Your task to perform on an android device: Clear the shopping cart on target. Search for lg ultragear on target, select the first entry, add it to the cart, then select checkout. Image 0: 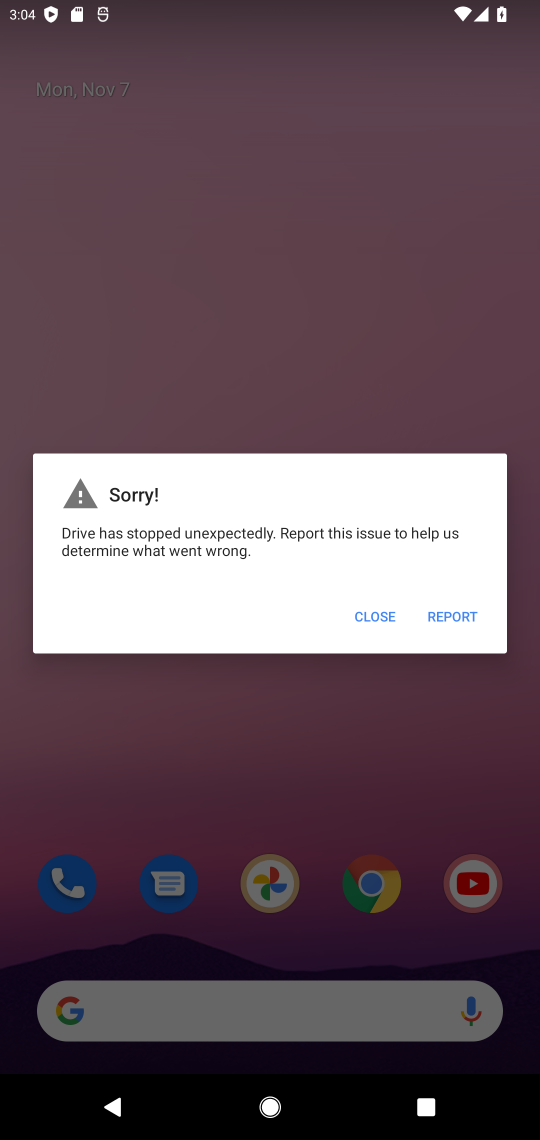
Step 0: press home button
Your task to perform on an android device: Clear the shopping cart on target. Search for lg ultragear on target, select the first entry, add it to the cart, then select checkout. Image 1: 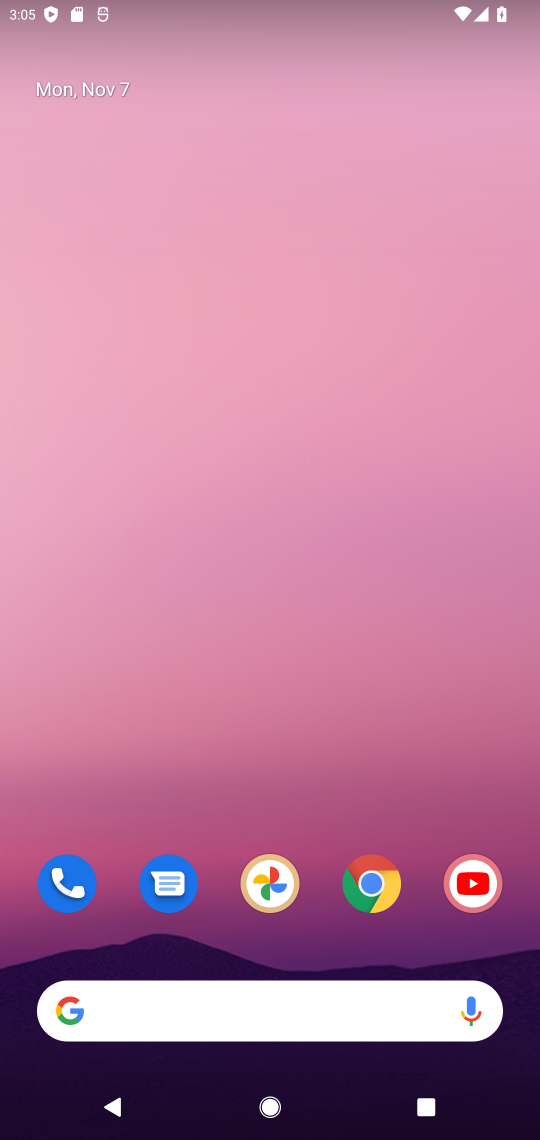
Step 1: click (377, 876)
Your task to perform on an android device: Clear the shopping cart on target. Search for lg ultragear on target, select the first entry, add it to the cart, then select checkout. Image 2: 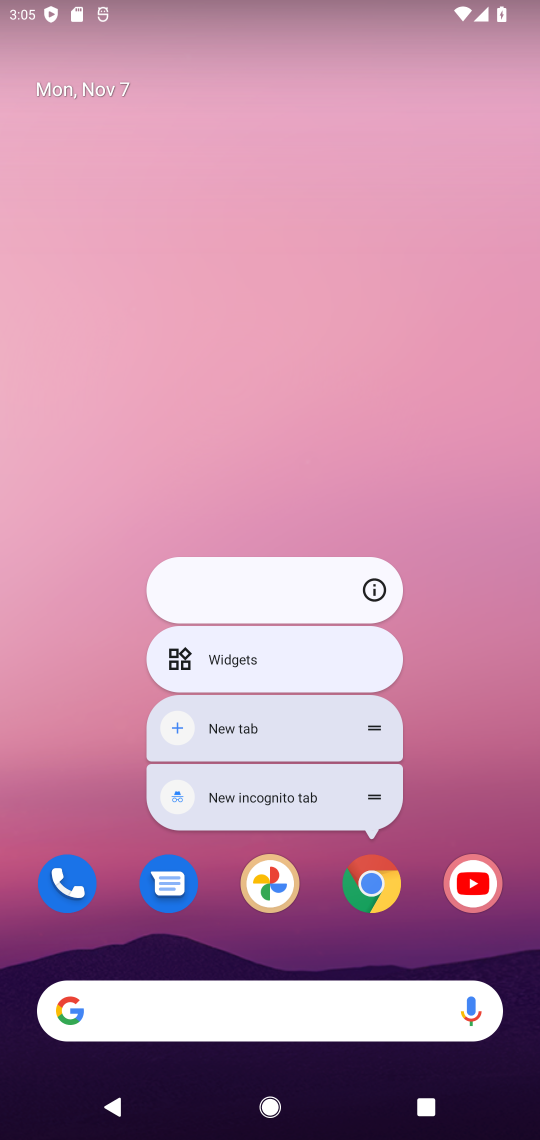
Step 2: click (377, 885)
Your task to perform on an android device: Clear the shopping cart on target. Search for lg ultragear on target, select the first entry, add it to the cart, then select checkout. Image 3: 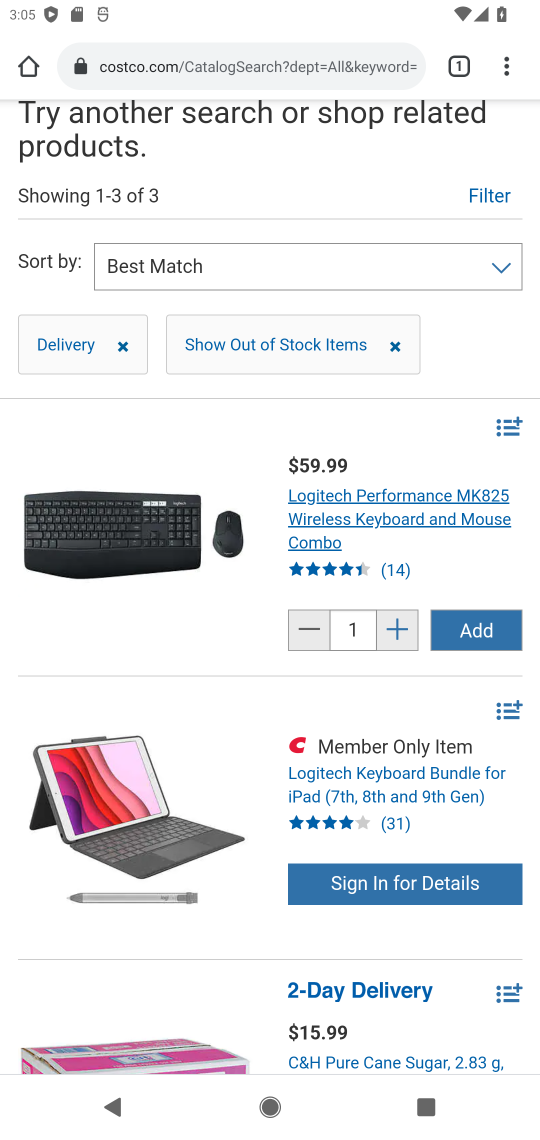
Step 3: click (315, 73)
Your task to perform on an android device: Clear the shopping cart on target. Search for lg ultragear on target, select the first entry, add it to the cart, then select checkout. Image 4: 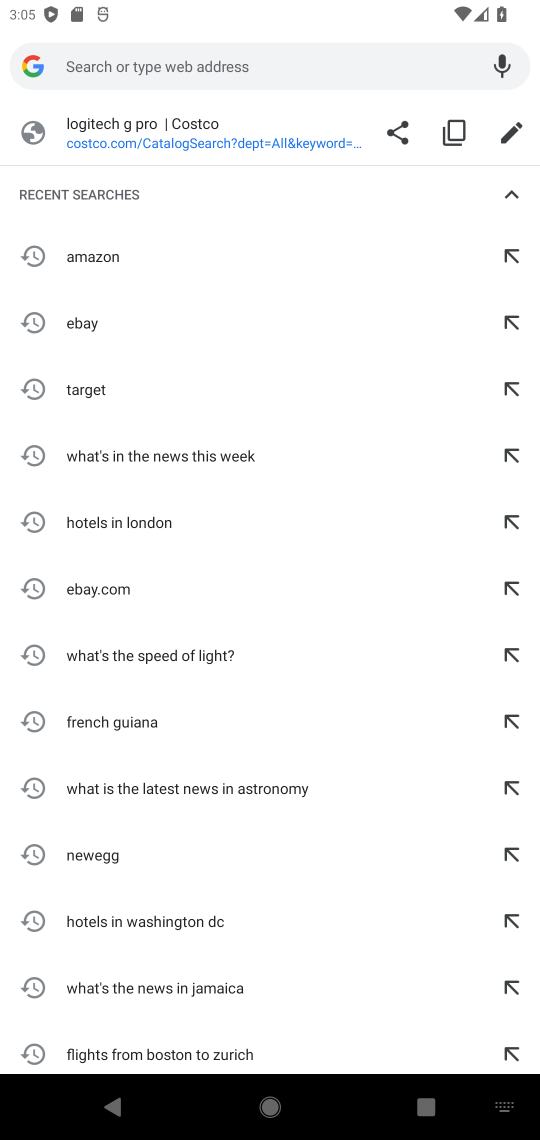
Step 4: type " target"
Your task to perform on an android device: Clear the shopping cart on target. Search for lg ultragear on target, select the first entry, add it to the cart, then select checkout. Image 5: 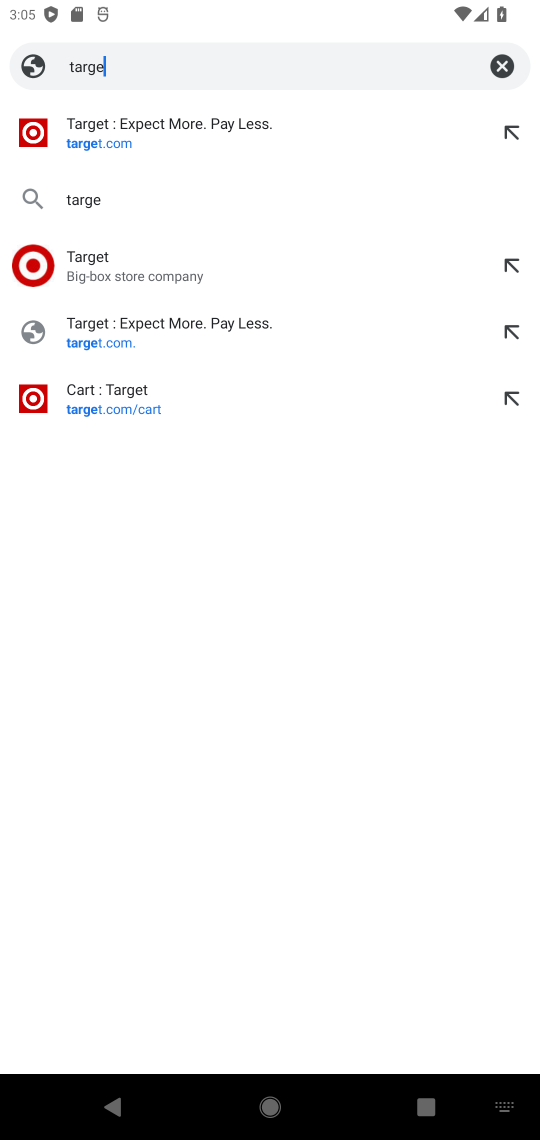
Step 5: press enter
Your task to perform on an android device: Clear the shopping cart on target. Search for lg ultragear on target, select the first entry, add it to the cart, then select checkout. Image 6: 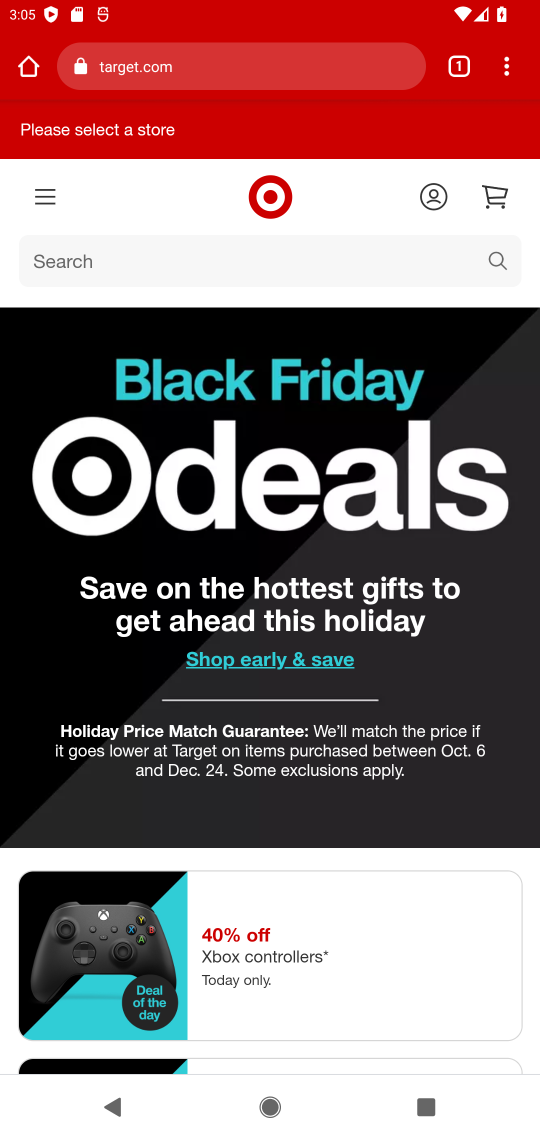
Step 6: drag from (327, 902) to (398, 912)
Your task to perform on an android device: Clear the shopping cart on target. Search for lg ultragear on target, select the first entry, add it to the cart, then select checkout. Image 7: 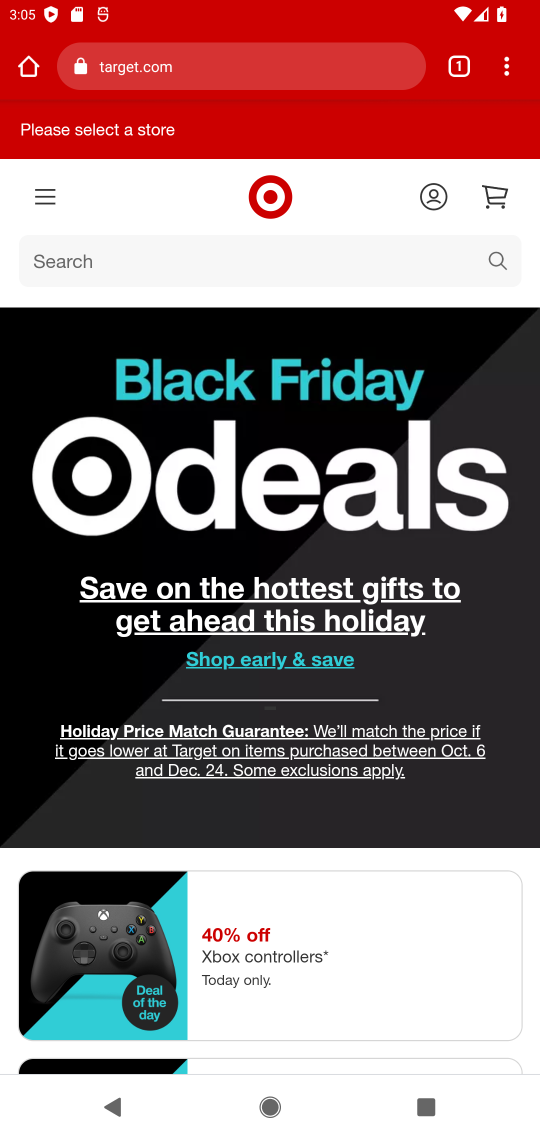
Step 7: click (183, 258)
Your task to perform on an android device: Clear the shopping cart on target. Search for lg ultragear on target, select the first entry, add it to the cart, then select checkout. Image 8: 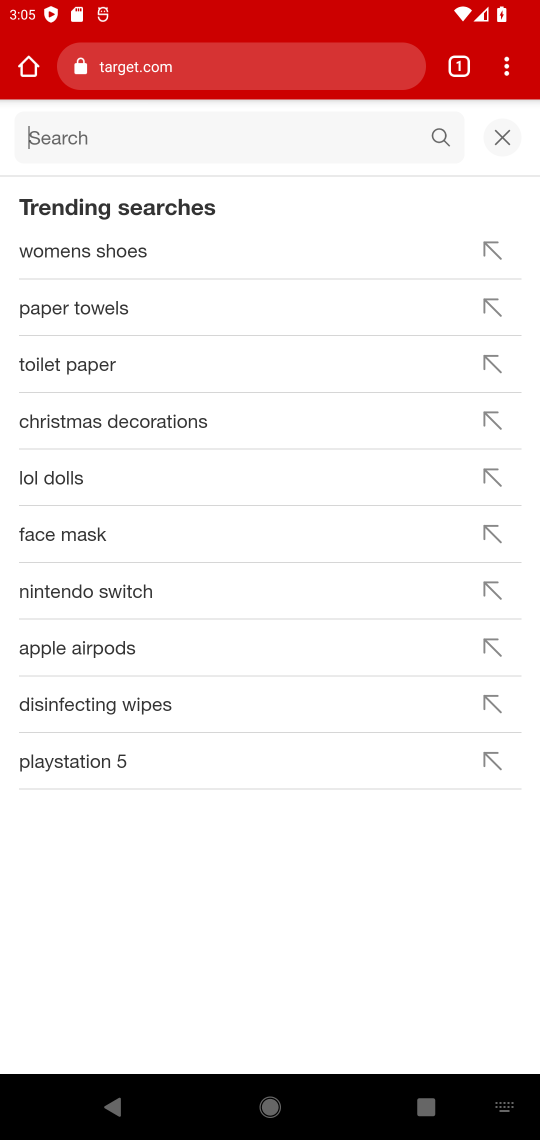
Step 8: type "lg ultragear"
Your task to perform on an android device: Clear the shopping cart on target. Search for lg ultragear on target, select the first entry, add it to the cart, then select checkout. Image 9: 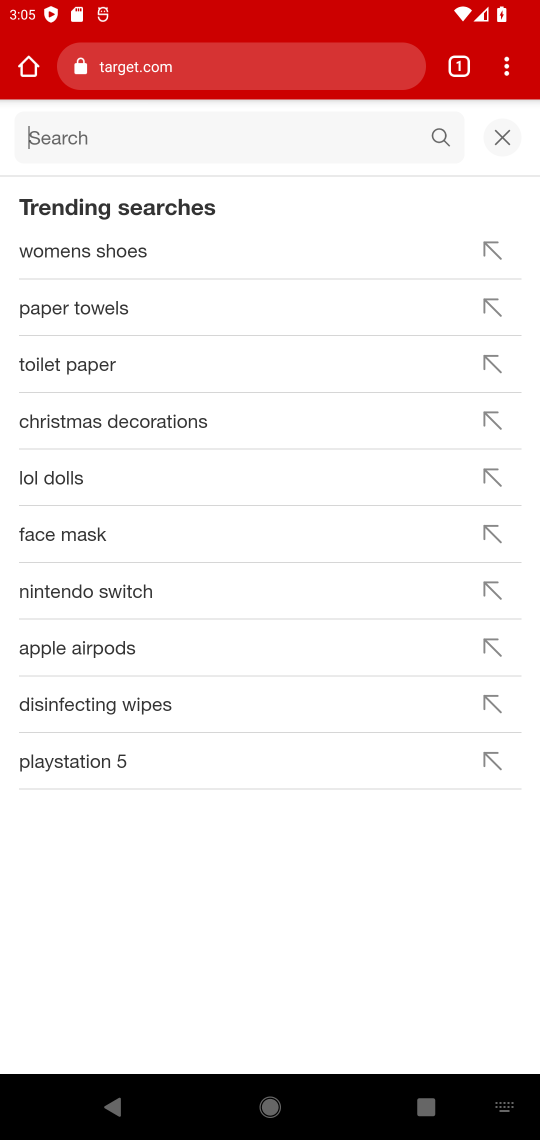
Step 9: press enter
Your task to perform on an android device: Clear the shopping cart on target. Search for lg ultragear on target, select the first entry, add it to the cart, then select checkout. Image 10: 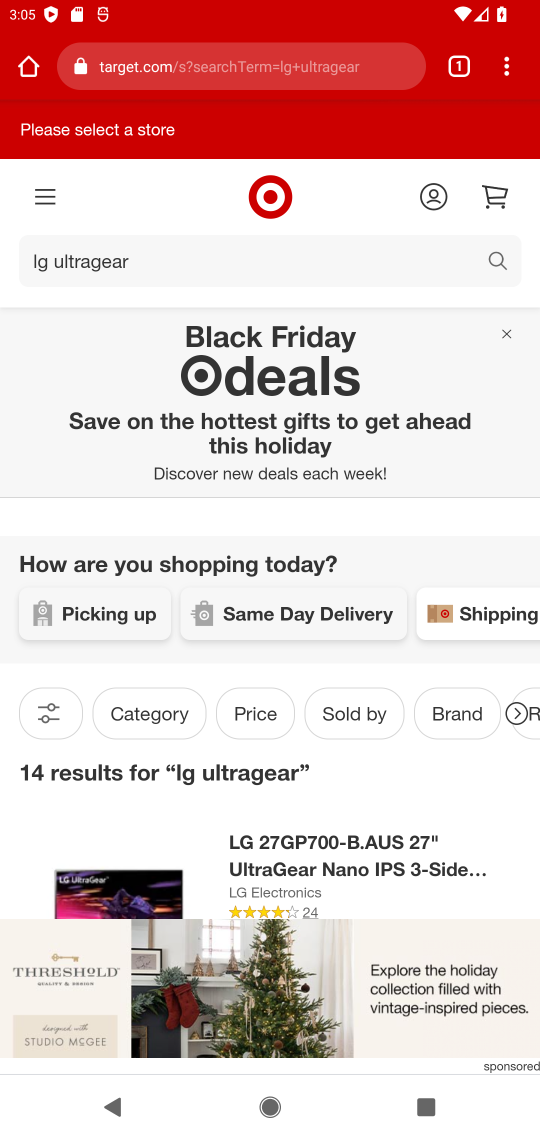
Step 10: drag from (258, 868) to (277, 689)
Your task to perform on an android device: Clear the shopping cart on target. Search for lg ultragear on target, select the first entry, add it to the cart, then select checkout. Image 11: 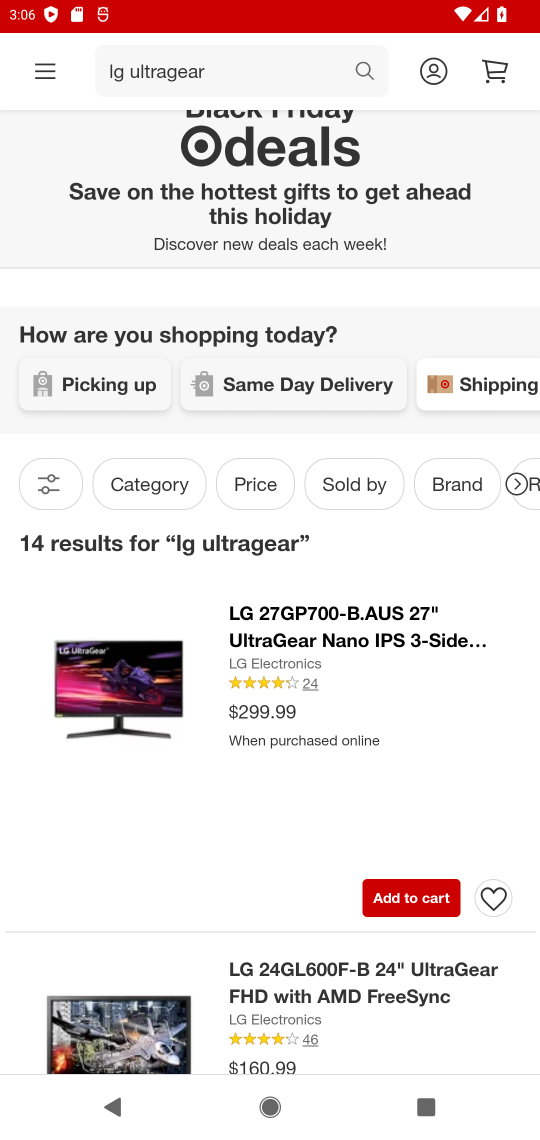
Step 11: click (408, 898)
Your task to perform on an android device: Clear the shopping cart on target. Search for lg ultragear on target, select the first entry, add it to the cart, then select checkout. Image 12: 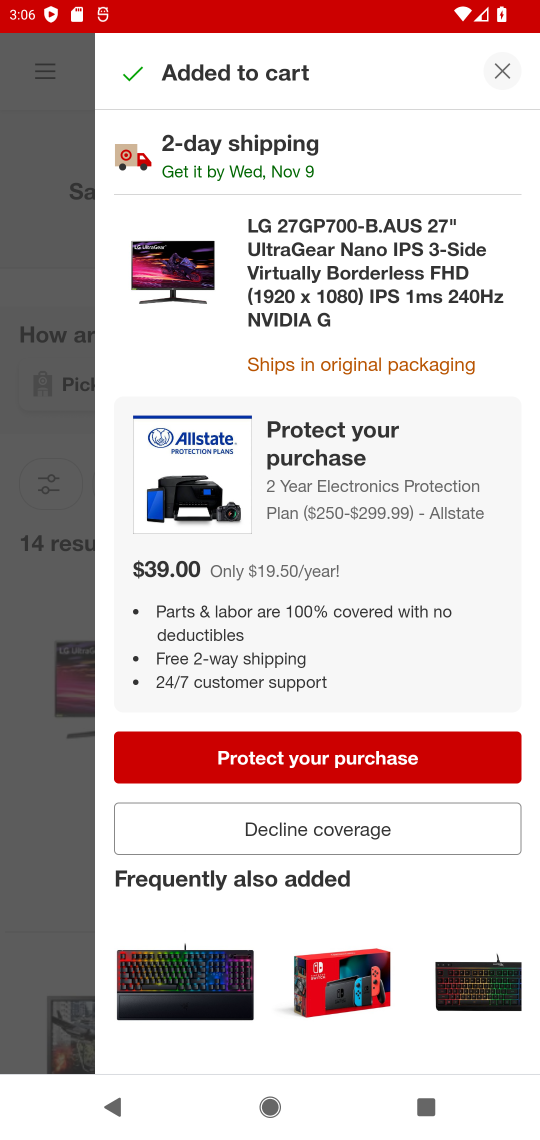
Step 12: click (322, 822)
Your task to perform on an android device: Clear the shopping cart on target. Search for lg ultragear on target, select the first entry, add it to the cart, then select checkout. Image 13: 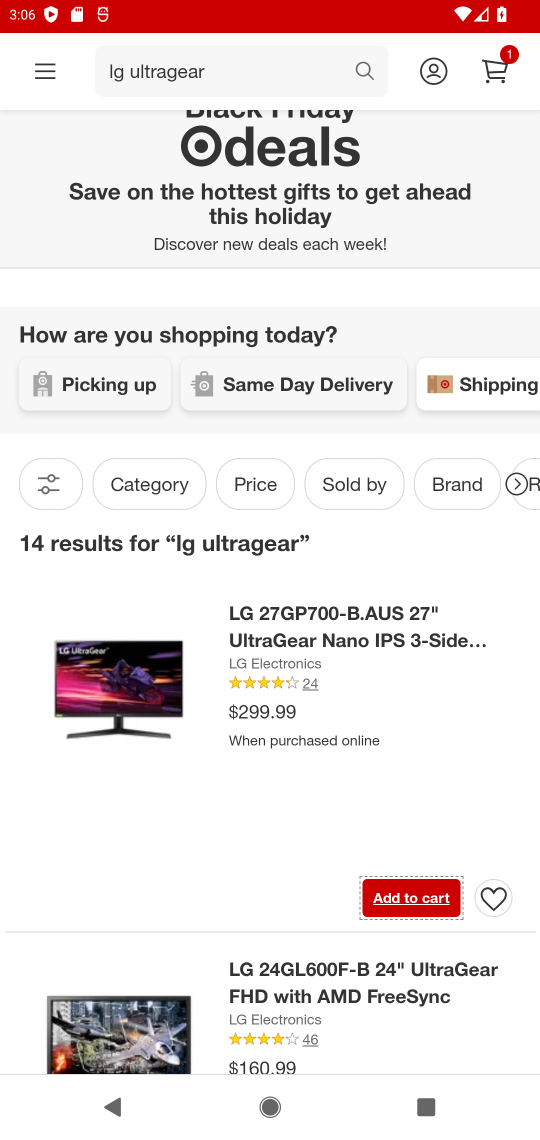
Step 13: click (497, 59)
Your task to perform on an android device: Clear the shopping cart on target. Search for lg ultragear on target, select the first entry, add it to the cart, then select checkout. Image 14: 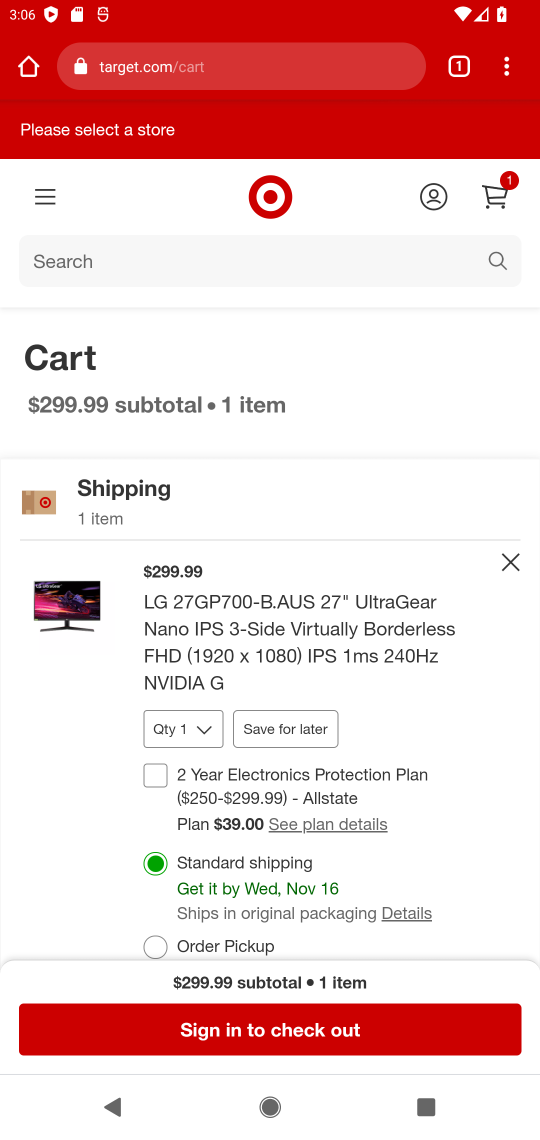
Step 14: click (316, 1026)
Your task to perform on an android device: Clear the shopping cart on target. Search for lg ultragear on target, select the first entry, add it to the cart, then select checkout. Image 15: 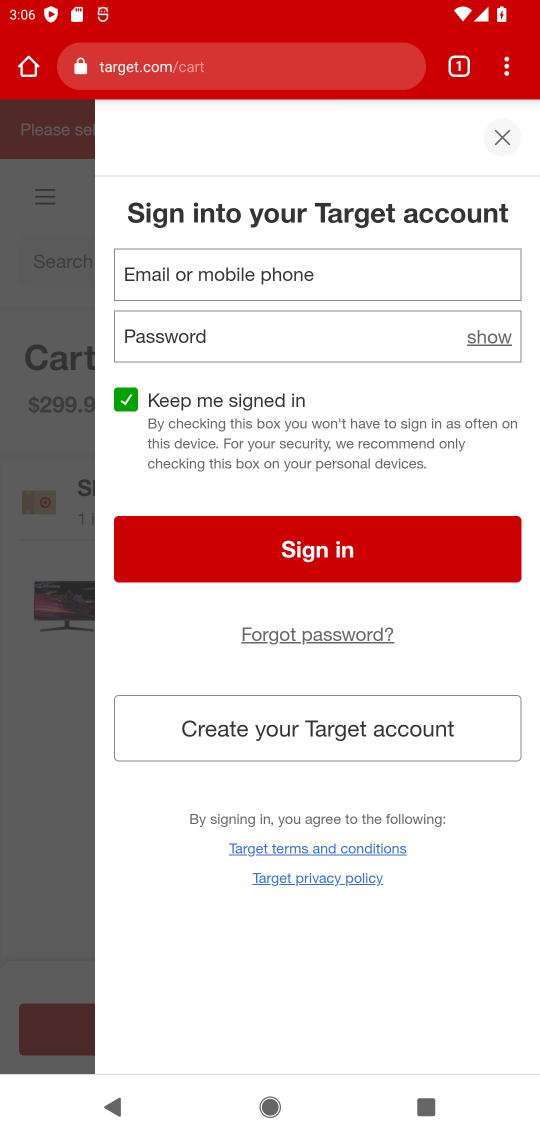
Step 15: task complete